Your task to perform on an android device: change the upload size in google photos Image 0: 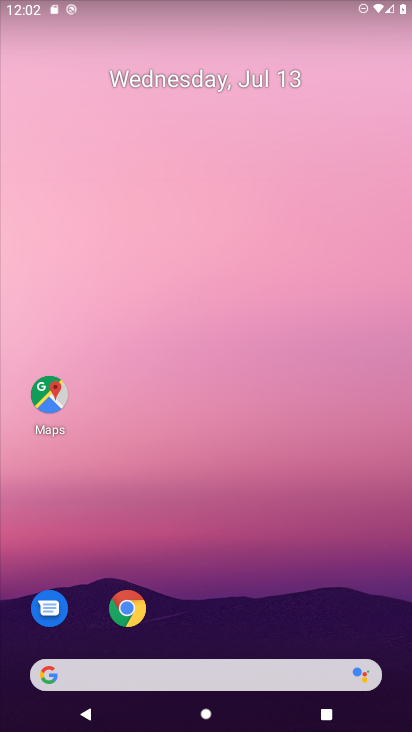
Step 0: drag from (245, 677) to (238, 111)
Your task to perform on an android device: change the upload size in google photos Image 1: 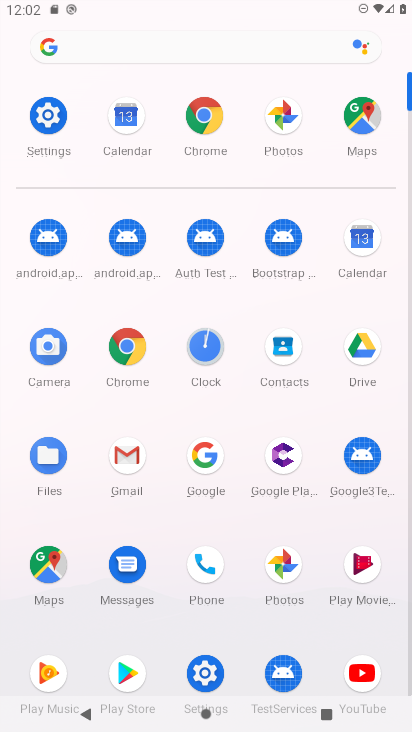
Step 1: click (290, 566)
Your task to perform on an android device: change the upload size in google photos Image 2: 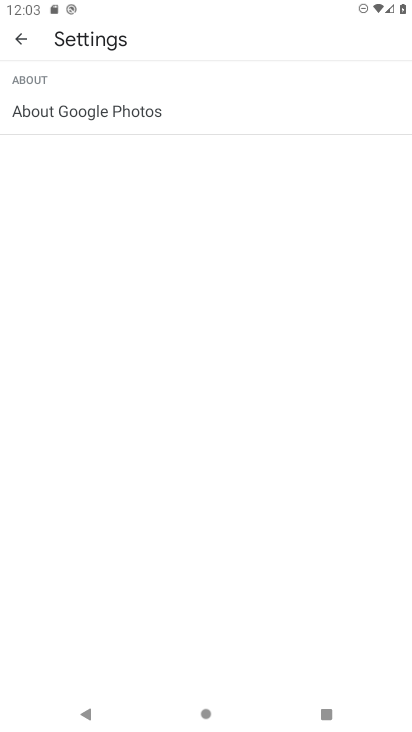
Step 2: click (25, 42)
Your task to perform on an android device: change the upload size in google photos Image 3: 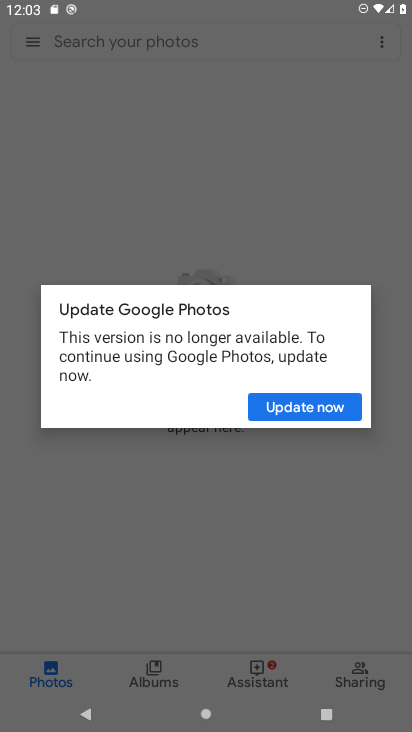
Step 3: task complete